Your task to perform on an android device: Play the last video I watched on Youtube Image 0: 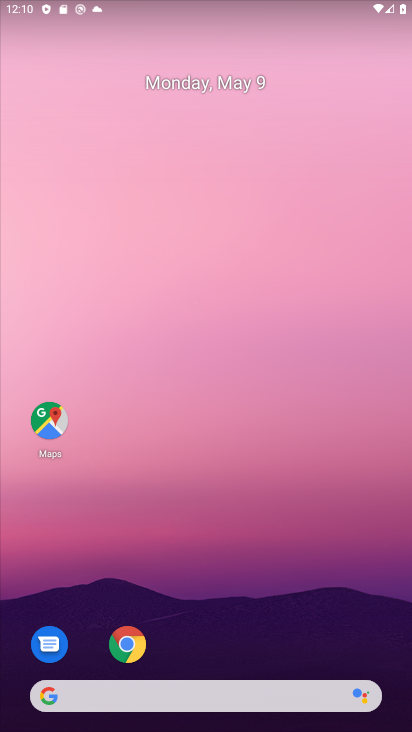
Step 0: drag from (361, 683) to (130, 48)
Your task to perform on an android device: Play the last video I watched on Youtube Image 1: 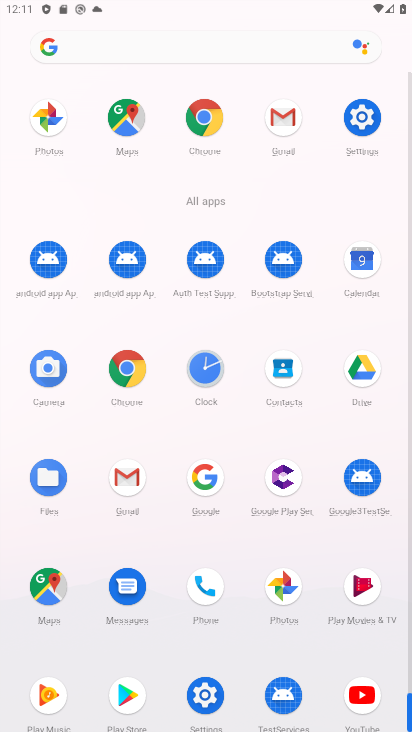
Step 1: click (358, 687)
Your task to perform on an android device: Play the last video I watched on Youtube Image 2: 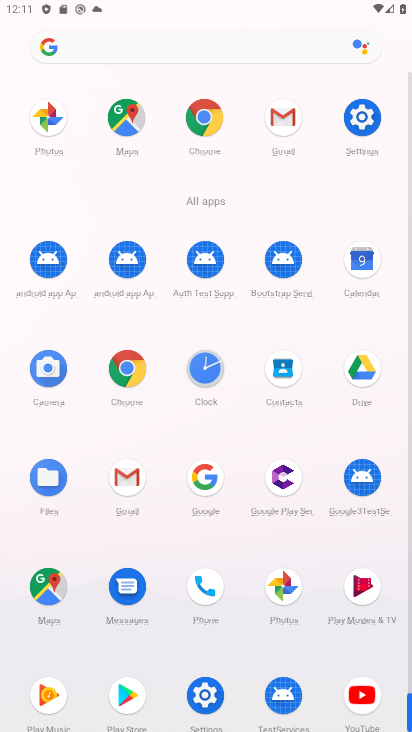
Step 2: click (358, 687)
Your task to perform on an android device: Play the last video I watched on Youtube Image 3: 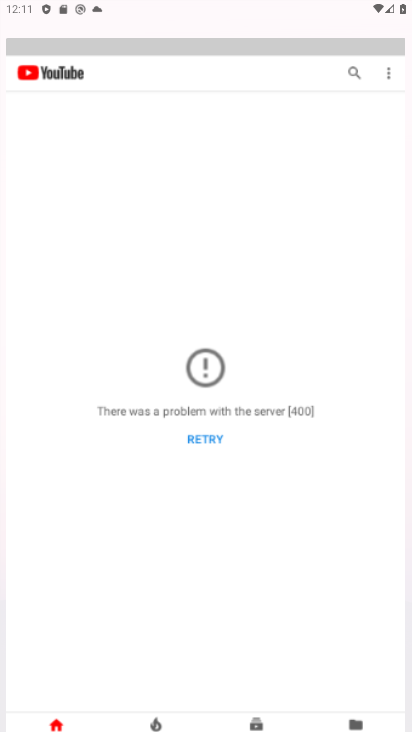
Step 3: click (359, 687)
Your task to perform on an android device: Play the last video I watched on Youtube Image 4: 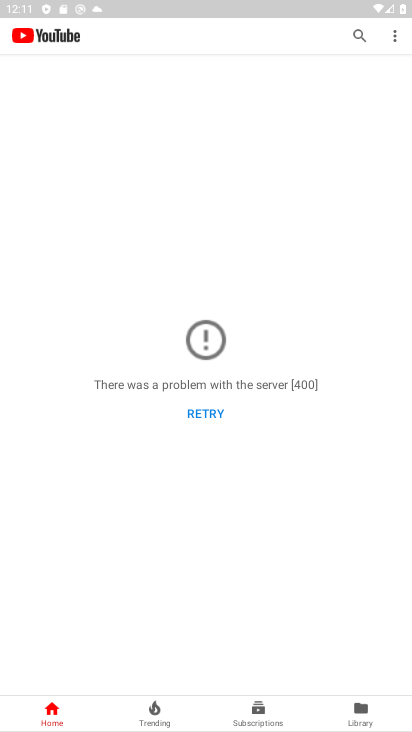
Step 4: click (359, 687)
Your task to perform on an android device: Play the last video I watched on Youtube Image 5: 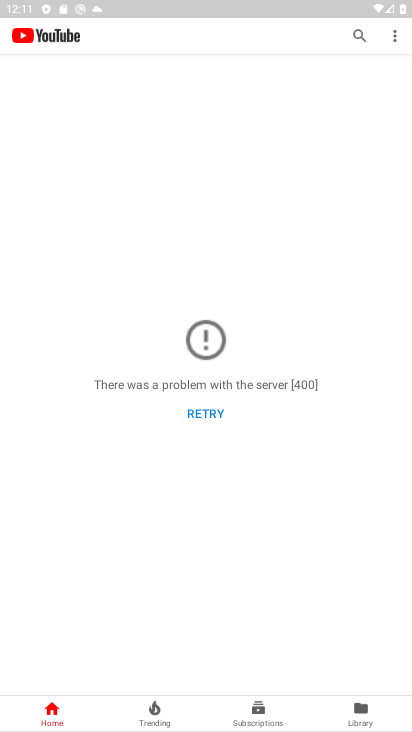
Step 5: drag from (271, 472) to (201, 265)
Your task to perform on an android device: Play the last video I watched on Youtube Image 6: 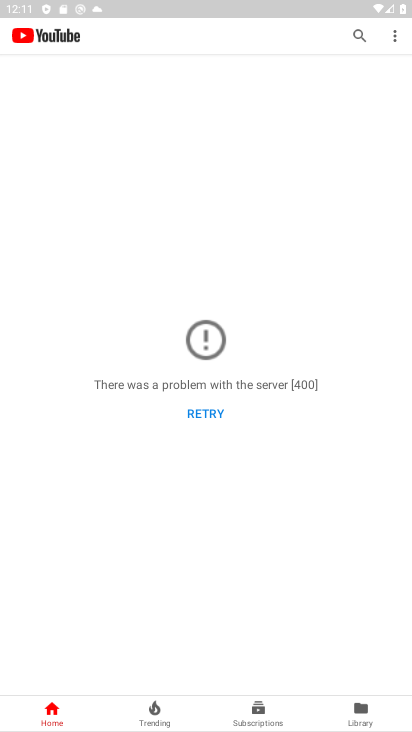
Step 6: click (206, 340)
Your task to perform on an android device: Play the last video I watched on Youtube Image 7: 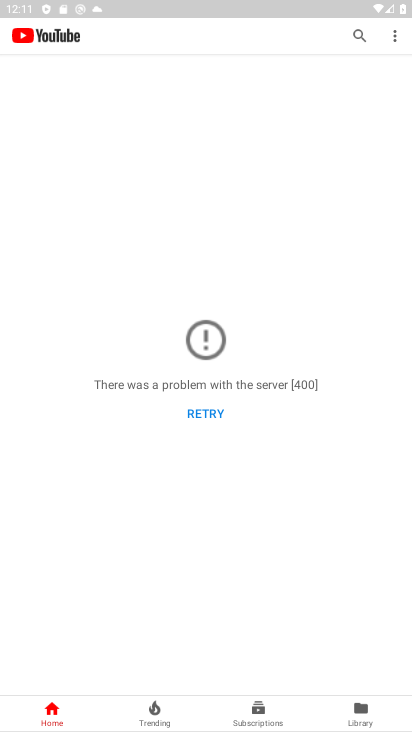
Step 7: task complete